Your task to perform on an android device: Go to eBay Image 0: 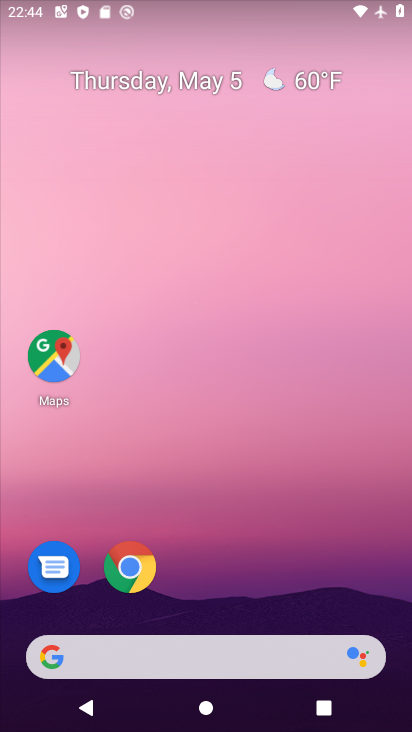
Step 0: click (126, 558)
Your task to perform on an android device: Go to eBay Image 1: 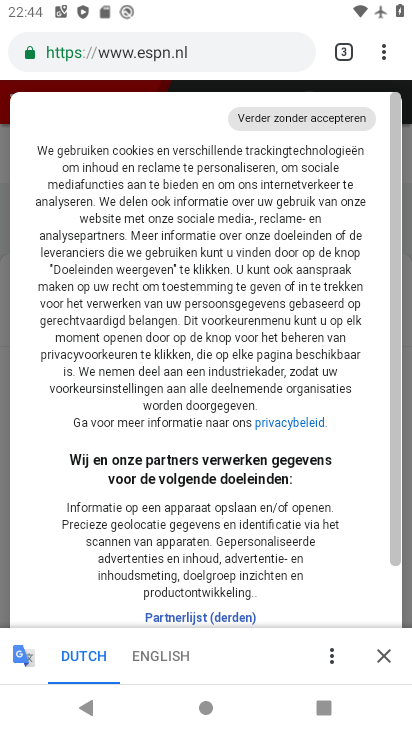
Step 1: click (337, 52)
Your task to perform on an android device: Go to eBay Image 2: 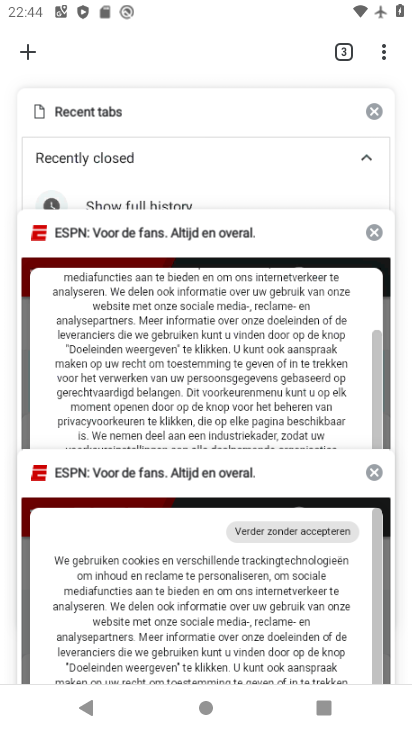
Step 2: click (370, 111)
Your task to perform on an android device: Go to eBay Image 3: 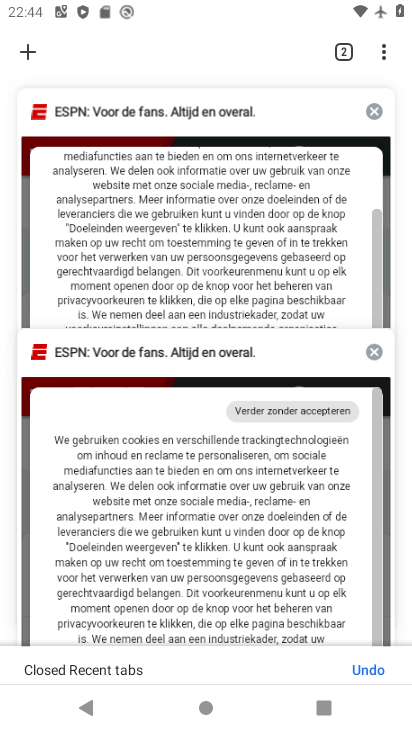
Step 3: click (370, 111)
Your task to perform on an android device: Go to eBay Image 4: 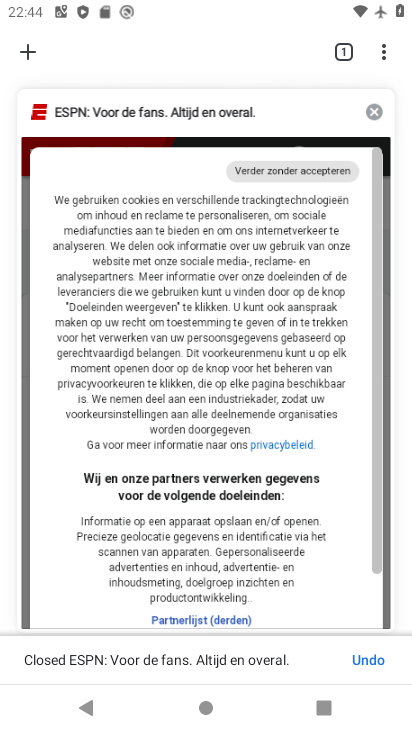
Step 4: click (370, 111)
Your task to perform on an android device: Go to eBay Image 5: 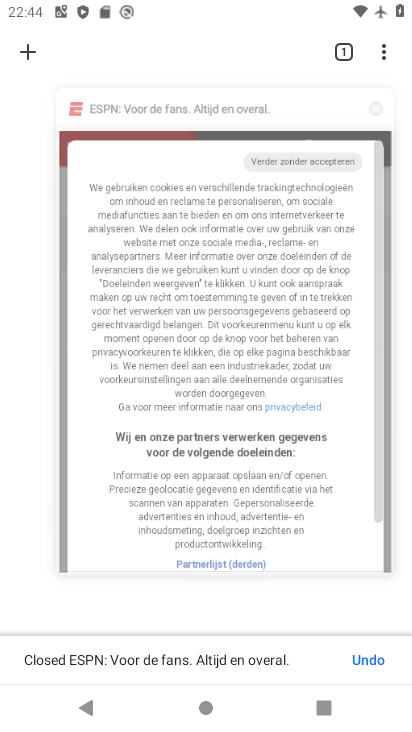
Step 5: click (34, 48)
Your task to perform on an android device: Go to eBay Image 6: 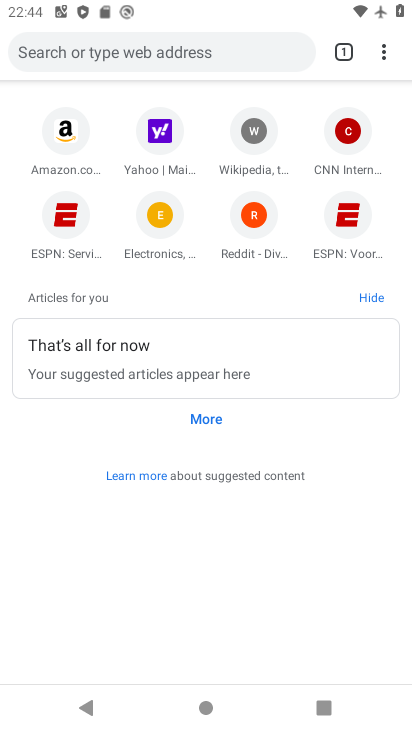
Step 6: click (151, 56)
Your task to perform on an android device: Go to eBay Image 7: 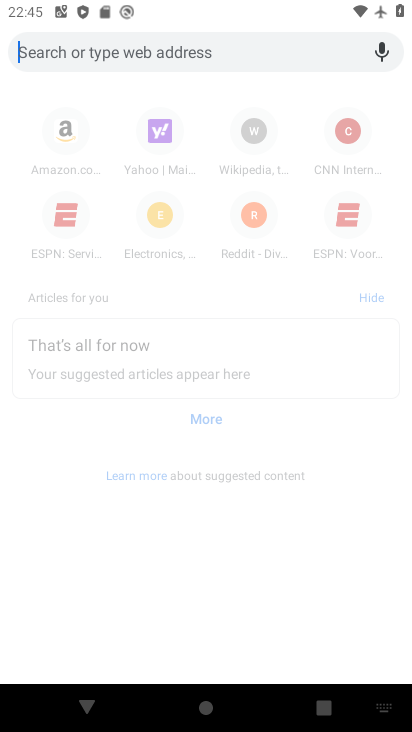
Step 7: type "eBay"
Your task to perform on an android device: Go to eBay Image 8: 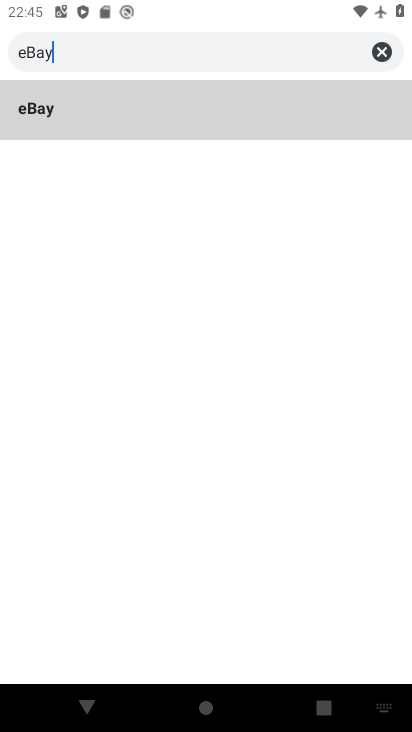
Step 8: click (120, 114)
Your task to perform on an android device: Go to eBay Image 9: 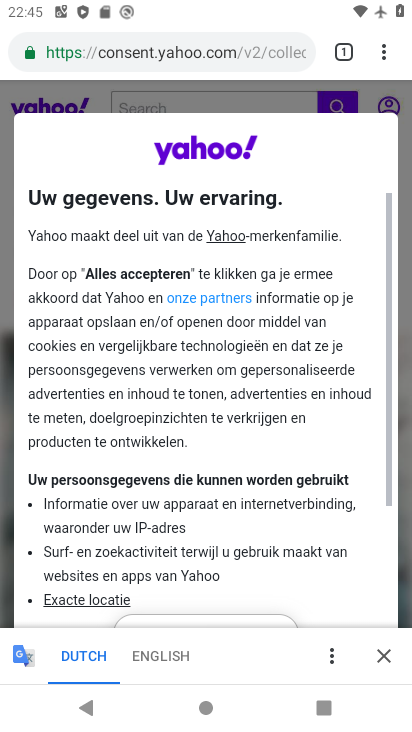
Step 9: drag from (282, 553) to (272, 264)
Your task to perform on an android device: Go to eBay Image 10: 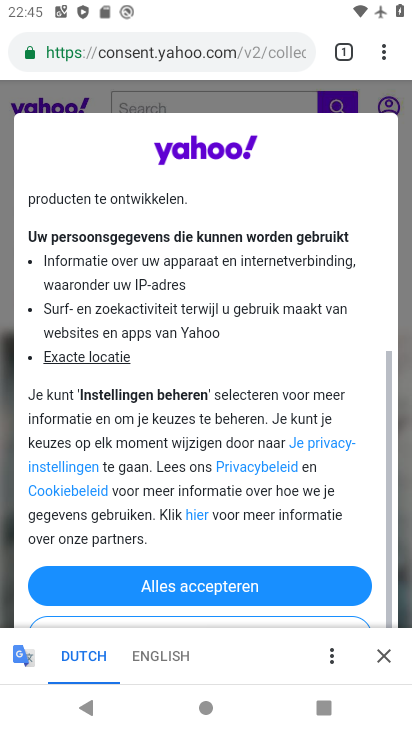
Step 10: drag from (278, 564) to (264, 427)
Your task to perform on an android device: Go to eBay Image 11: 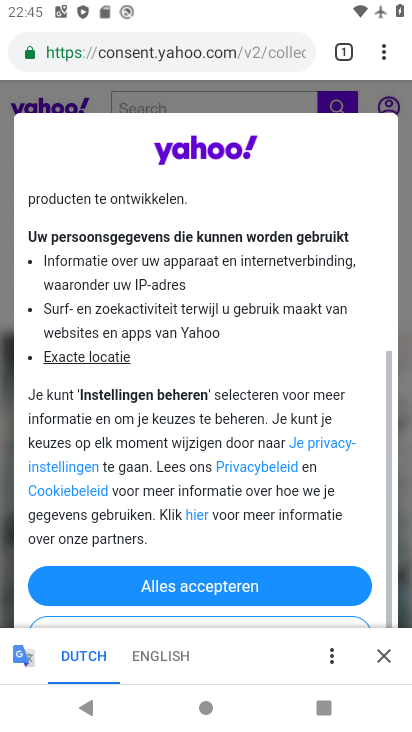
Step 11: click (264, 576)
Your task to perform on an android device: Go to eBay Image 12: 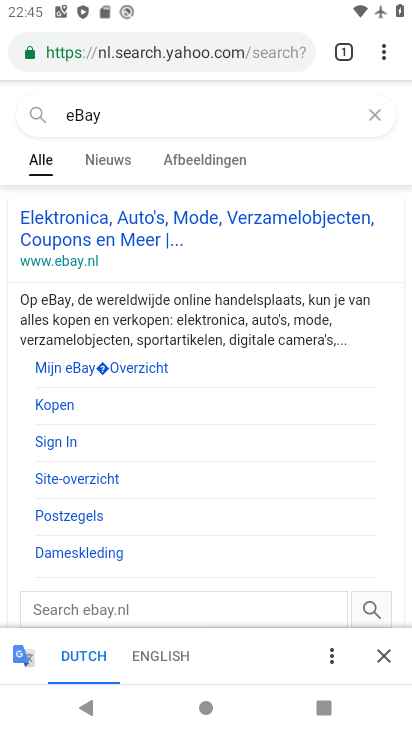
Step 12: drag from (182, 494) to (251, 137)
Your task to perform on an android device: Go to eBay Image 13: 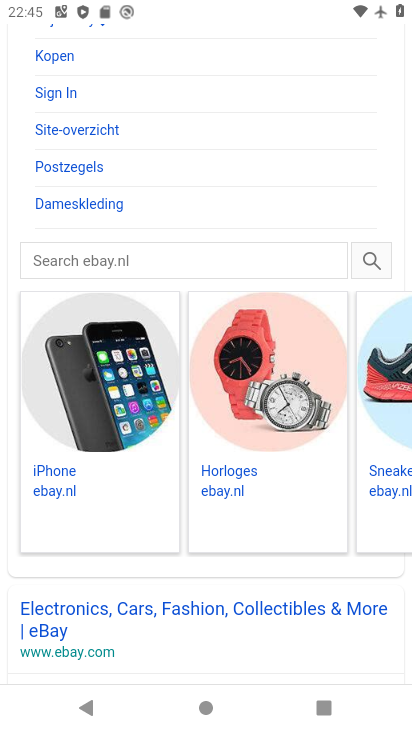
Step 13: click (125, 611)
Your task to perform on an android device: Go to eBay Image 14: 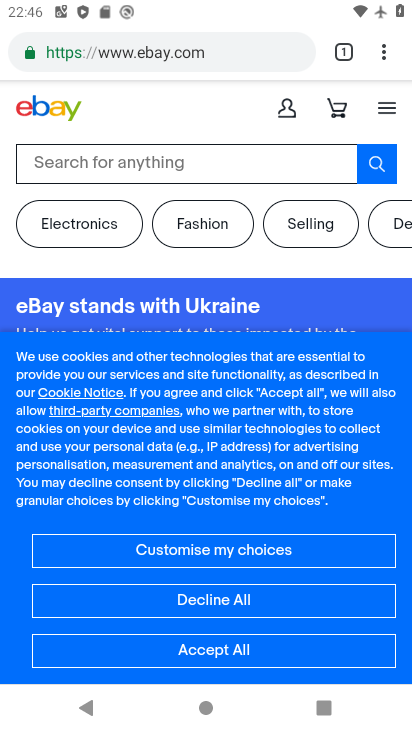
Step 14: task complete